Your task to perform on an android device: turn off sleep mode Image 0: 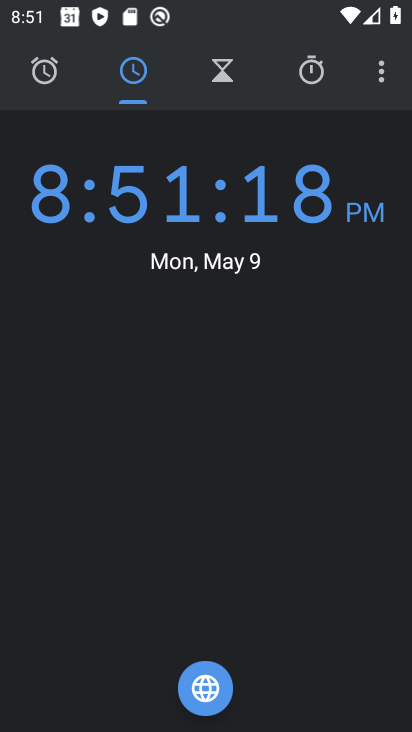
Step 0: press home button
Your task to perform on an android device: turn off sleep mode Image 1: 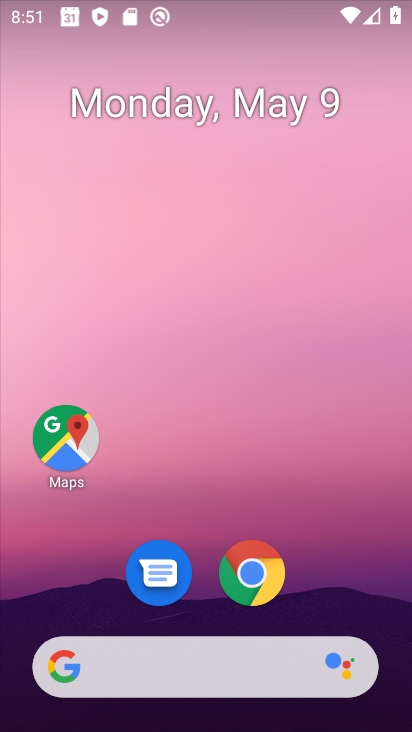
Step 1: drag from (327, 592) to (295, 125)
Your task to perform on an android device: turn off sleep mode Image 2: 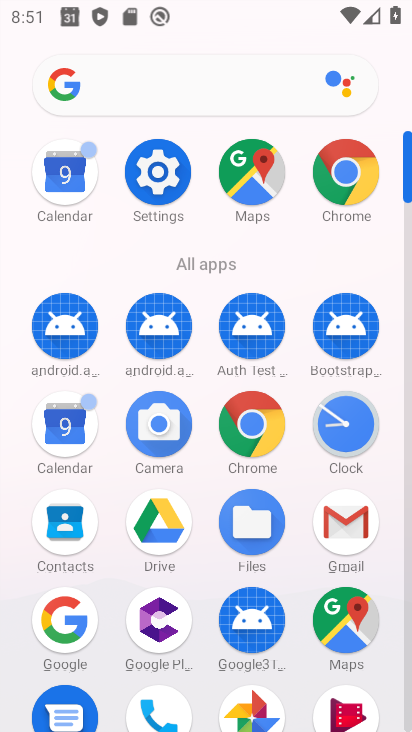
Step 2: click (147, 174)
Your task to perform on an android device: turn off sleep mode Image 3: 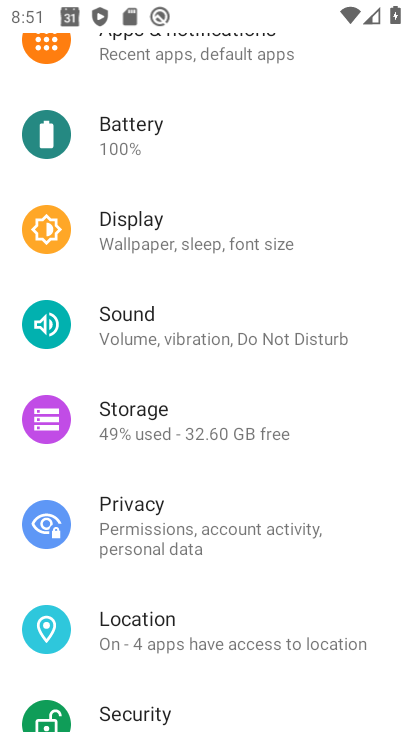
Step 3: drag from (187, 541) to (173, 461)
Your task to perform on an android device: turn off sleep mode Image 4: 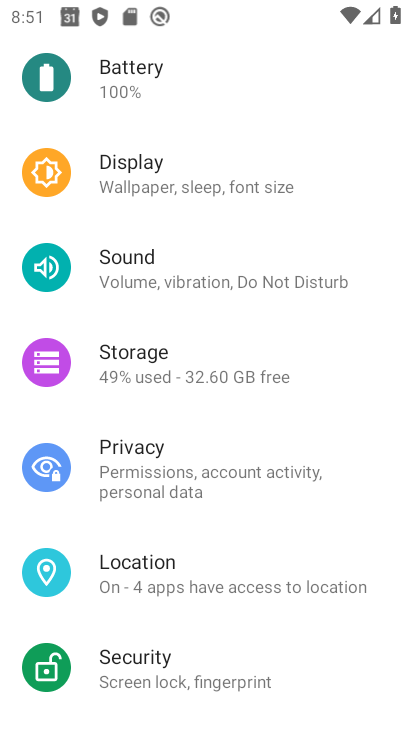
Step 4: drag from (186, 562) to (178, 459)
Your task to perform on an android device: turn off sleep mode Image 5: 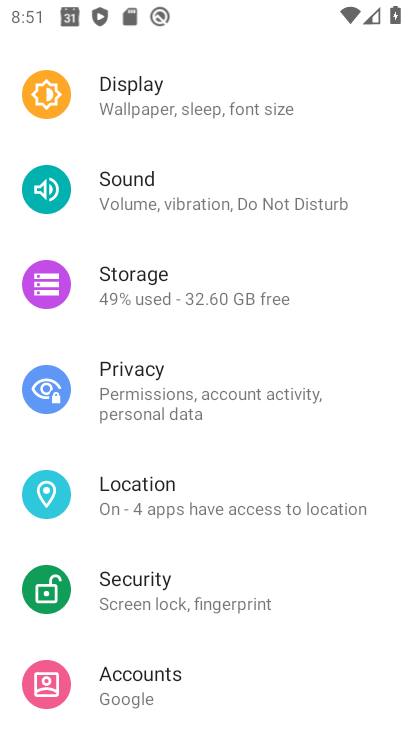
Step 5: drag from (222, 551) to (235, 465)
Your task to perform on an android device: turn off sleep mode Image 6: 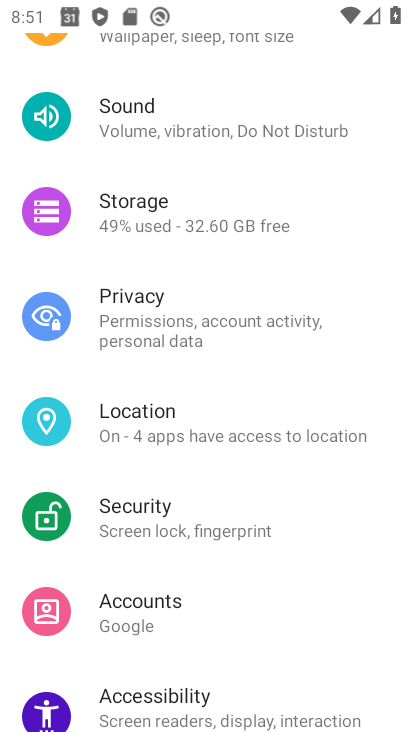
Step 6: drag from (221, 585) to (213, 510)
Your task to perform on an android device: turn off sleep mode Image 7: 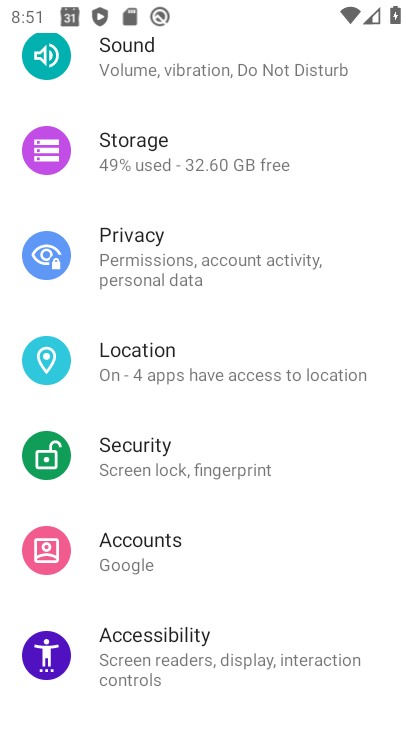
Step 7: drag from (218, 593) to (221, 527)
Your task to perform on an android device: turn off sleep mode Image 8: 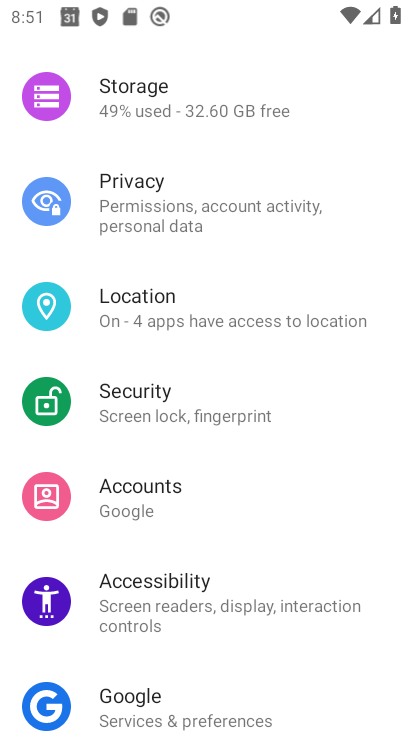
Step 8: drag from (216, 615) to (215, 519)
Your task to perform on an android device: turn off sleep mode Image 9: 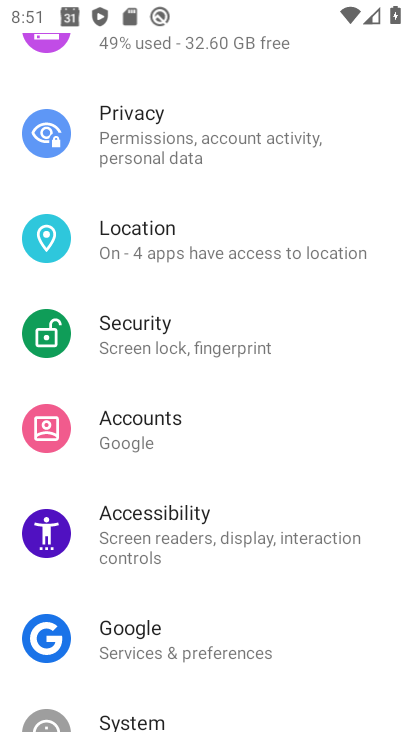
Step 9: drag from (241, 613) to (241, 520)
Your task to perform on an android device: turn off sleep mode Image 10: 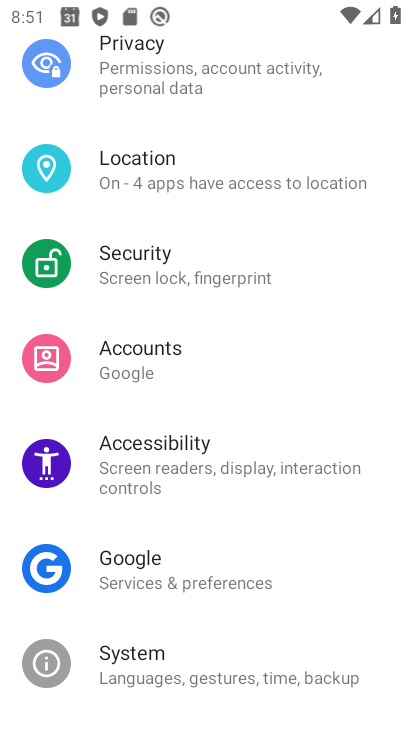
Step 10: drag from (244, 599) to (254, 475)
Your task to perform on an android device: turn off sleep mode Image 11: 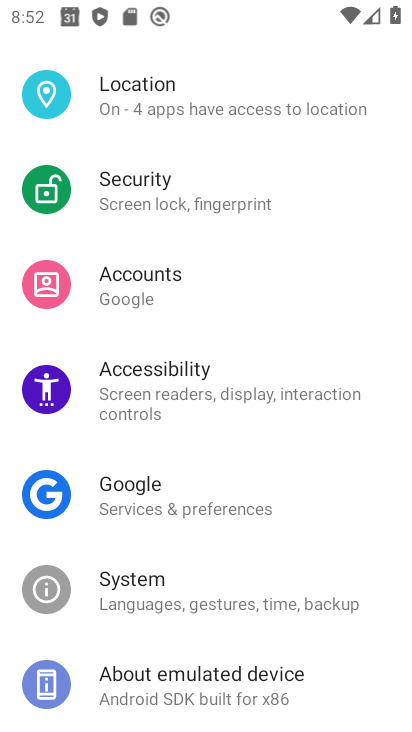
Step 11: drag from (246, 445) to (268, 547)
Your task to perform on an android device: turn off sleep mode Image 12: 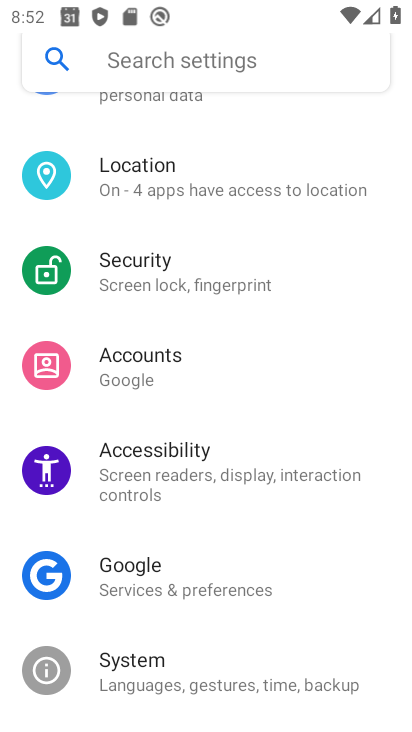
Step 12: drag from (250, 423) to (263, 493)
Your task to perform on an android device: turn off sleep mode Image 13: 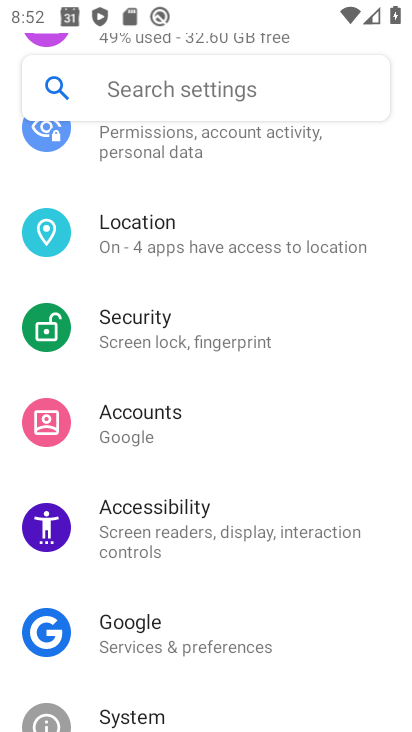
Step 13: drag from (243, 444) to (244, 488)
Your task to perform on an android device: turn off sleep mode Image 14: 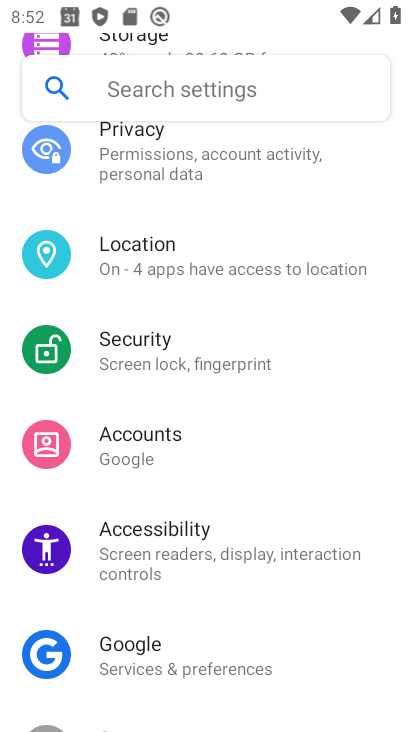
Step 14: drag from (227, 355) to (226, 454)
Your task to perform on an android device: turn off sleep mode Image 15: 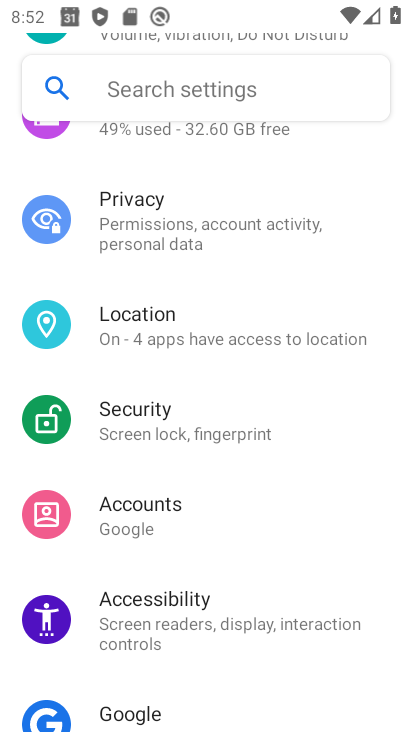
Step 15: drag from (229, 356) to (228, 476)
Your task to perform on an android device: turn off sleep mode Image 16: 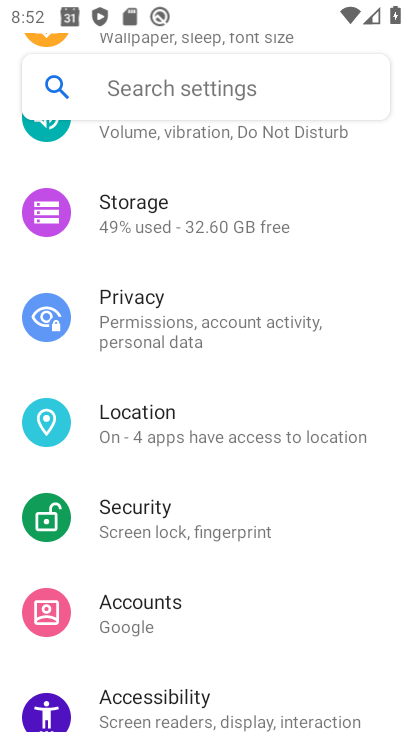
Step 16: drag from (215, 318) to (223, 402)
Your task to perform on an android device: turn off sleep mode Image 17: 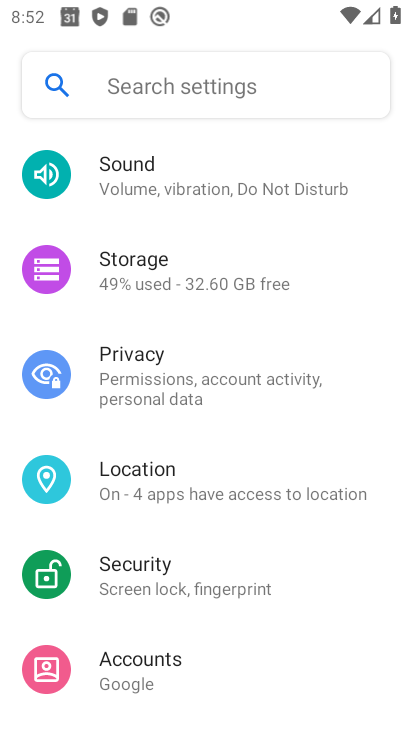
Step 17: drag from (224, 274) to (222, 443)
Your task to perform on an android device: turn off sleep mode Image 18: 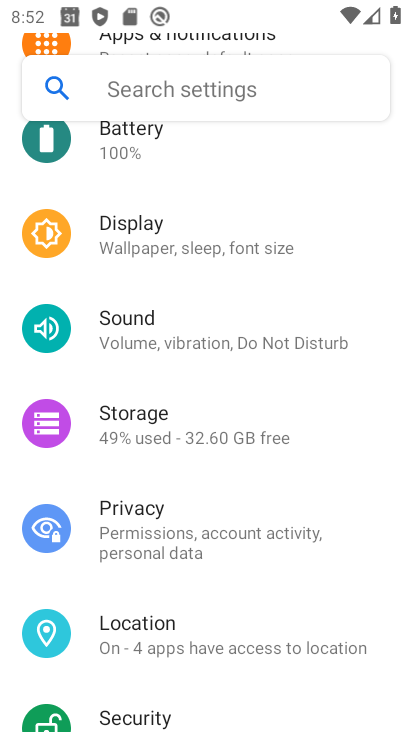
Step 18: drag from (208, 329) to (203, 454)
Your task to perform on an android device: turn off sleep mode Image 19: 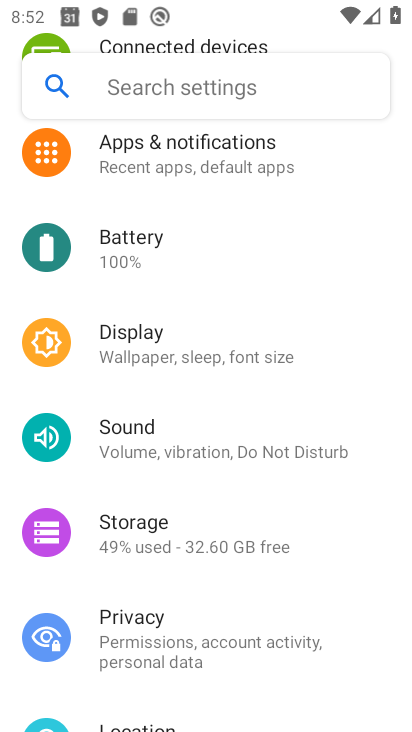
Step 19: click (202, 352)
Your task to perform on an android device: turn off sleep mode Image 20: 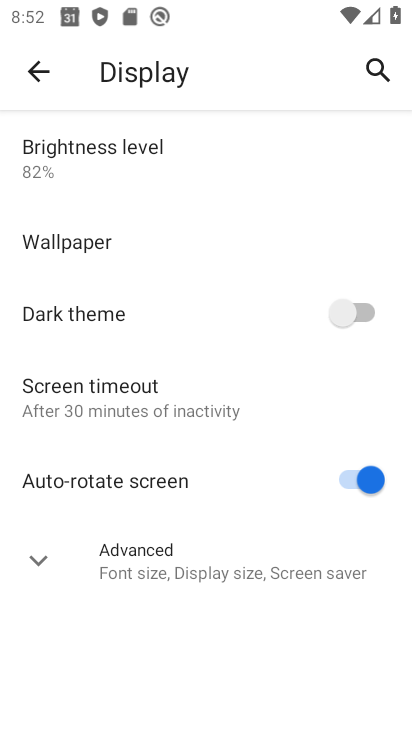
Step 20: click (210, 554)
Your task to perform on an android device: turn off sleep mode Image 21: 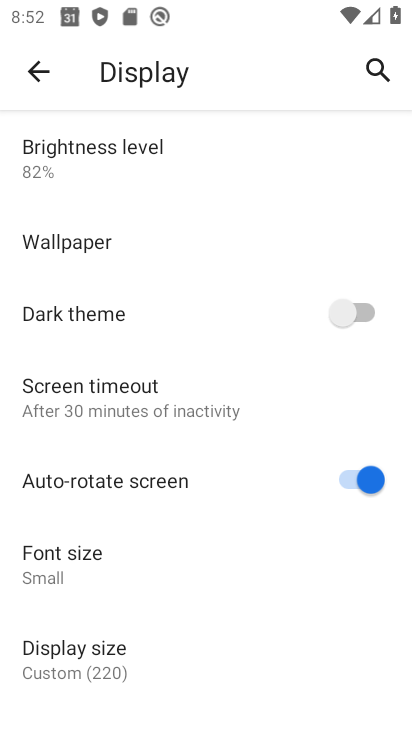
Step 21: task complete